Your task to perform on an android device: Open settings on Google Maps Image 0: 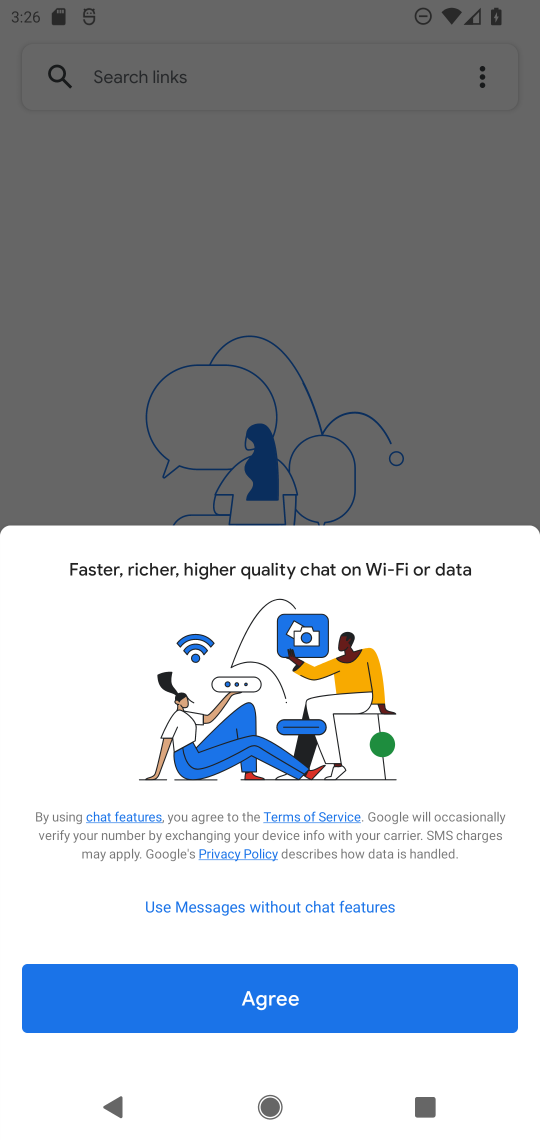
Step 0: press home button
Your task to perform on an android device: Open settings on Google Maps Image 1: 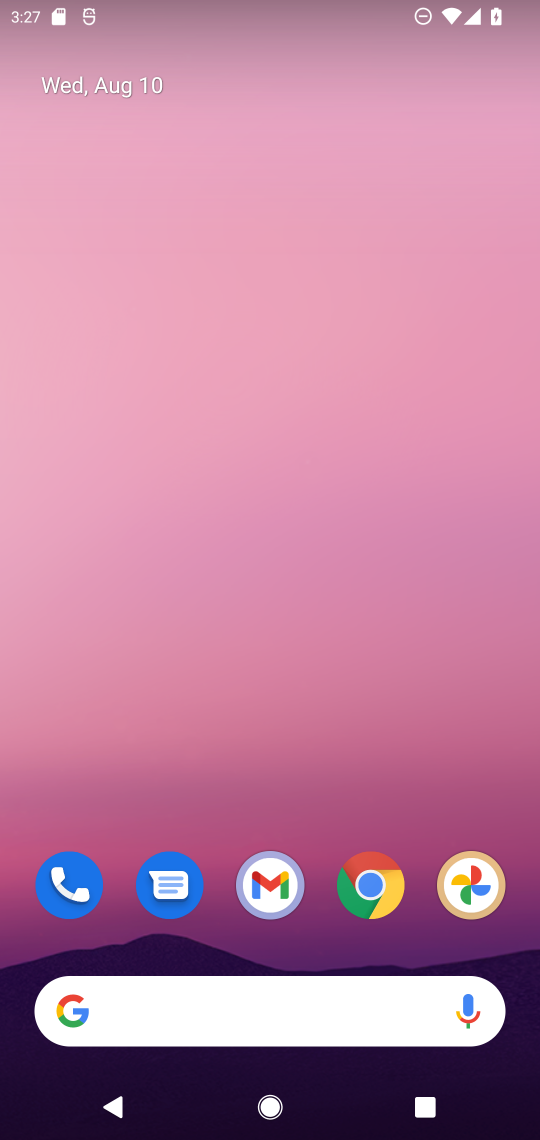
Step 1: drag from (329, 955) to (218, 97)
Your task to perform on an android device: Open settings on Google Maps Image 2: 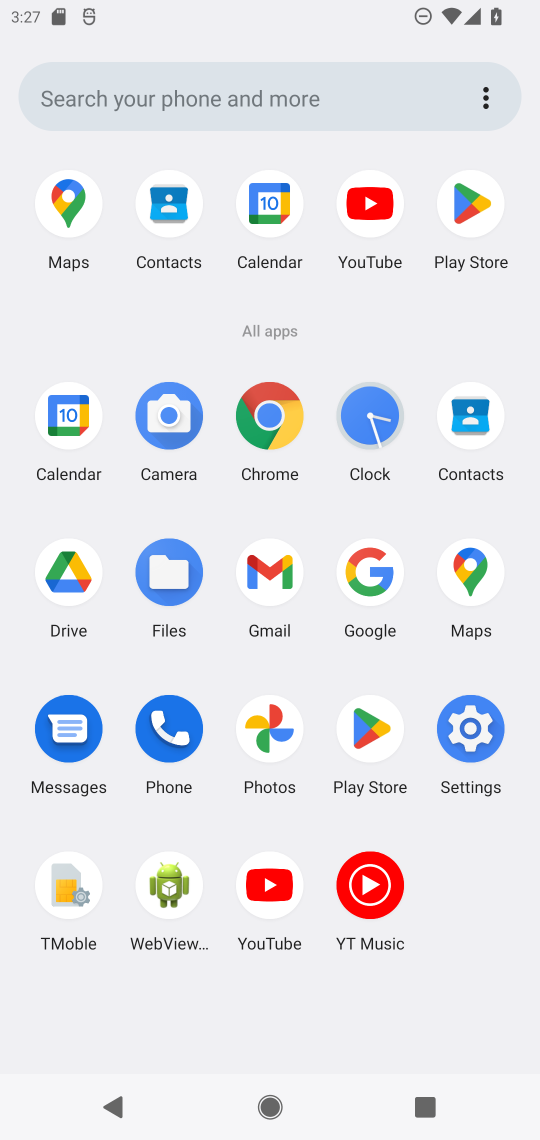
Step 2: click (69, 197)
Your task to perform on an android device: Open settings on Google Maps Image 3: 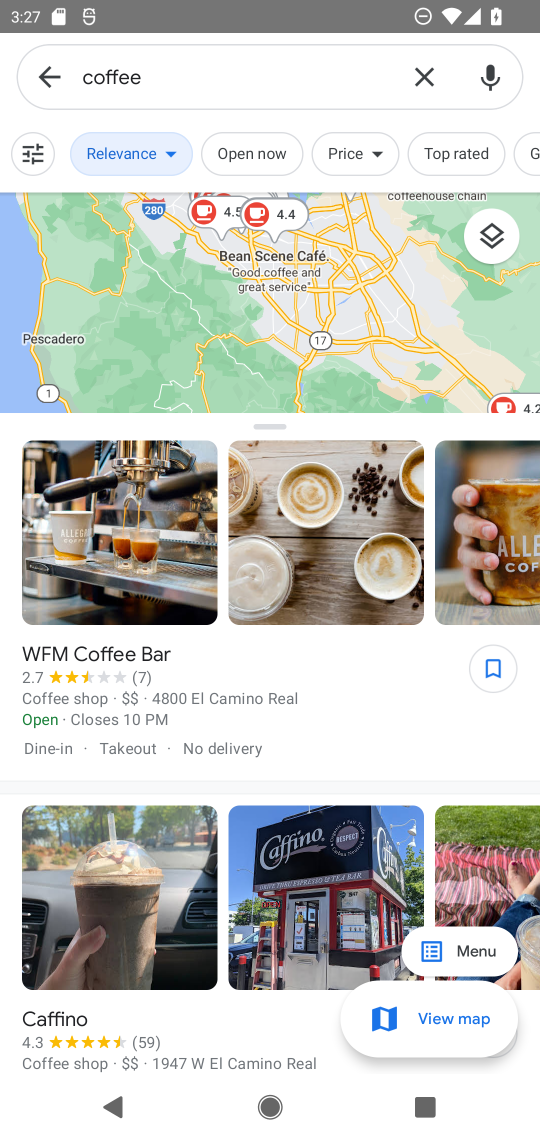
Step 3: click (44, 74)
Your task to perform on an android device: Open settings on Google Maps Image 4: 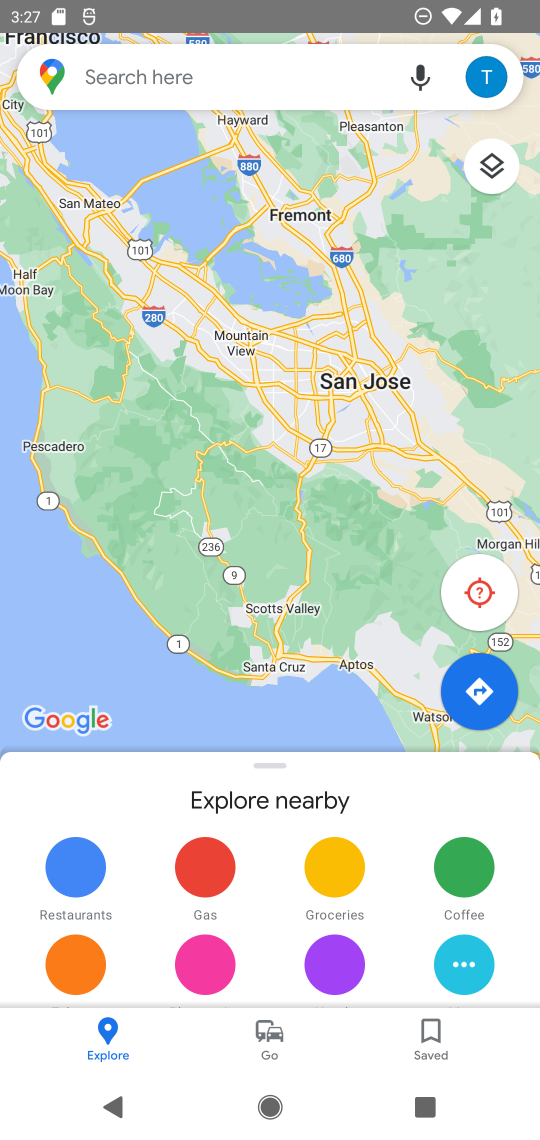
Step 4: click (492, 83)
Your task to perform on an android device: Open settings on Google Maps Image 5: 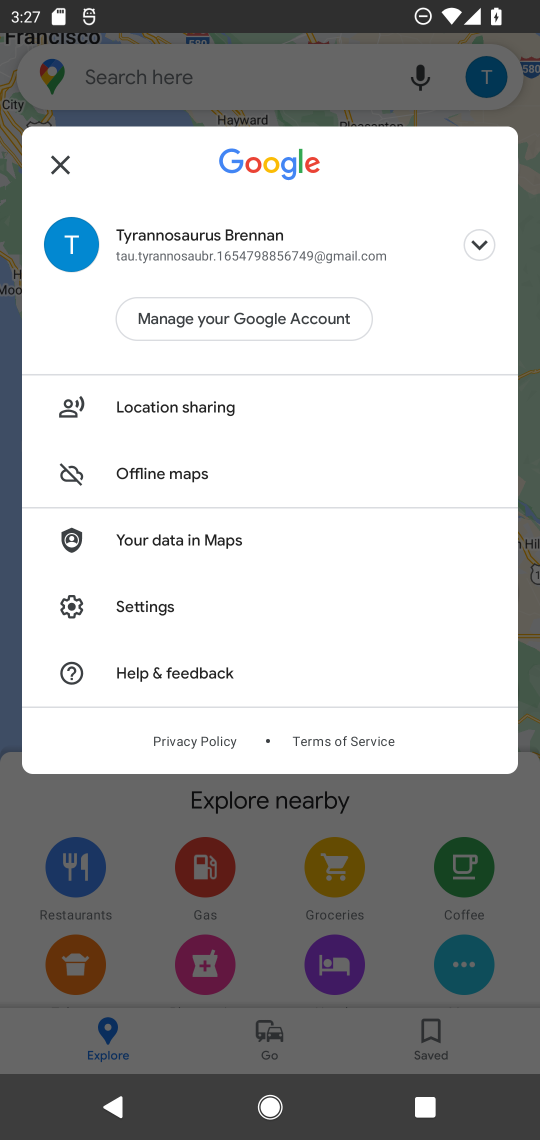
Step 5: click (151, 596)
Your task to perform on an android device: Open settings on Google Maps Image 6: 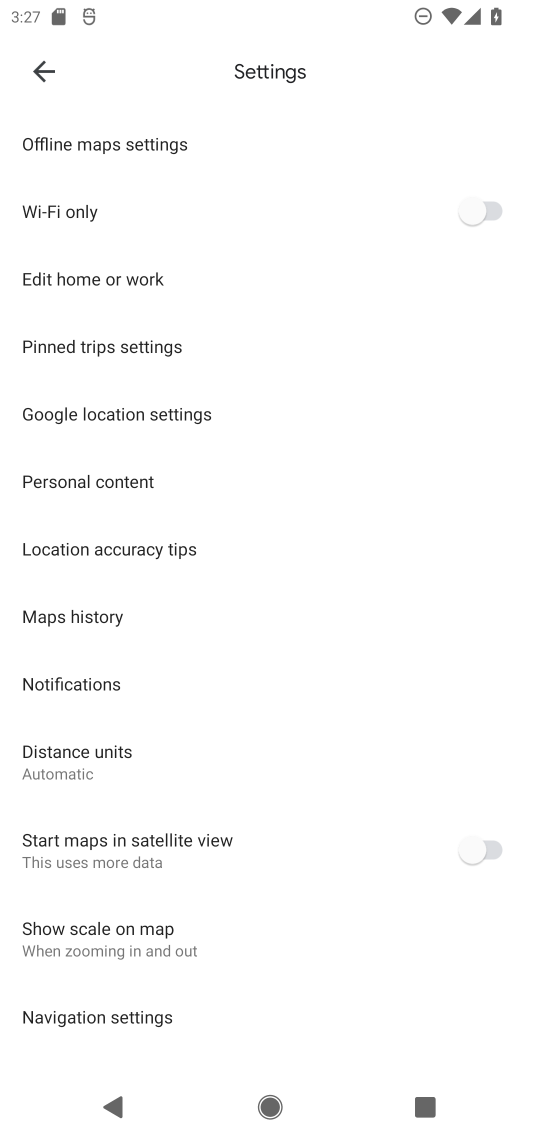
Step 6: task complete